Your task to perform on an android device: turn on bluetooth scan Image 0: 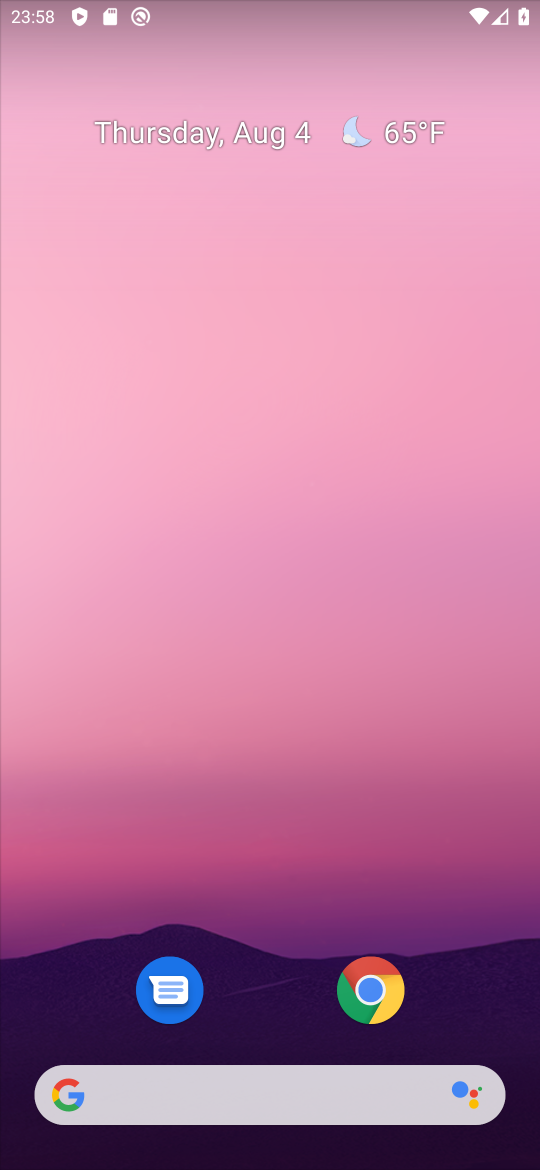
Step 0: drag from (413, 770) to (296, 126)
Your task to perform on an android device: turn on bluetooth scan Image 1: 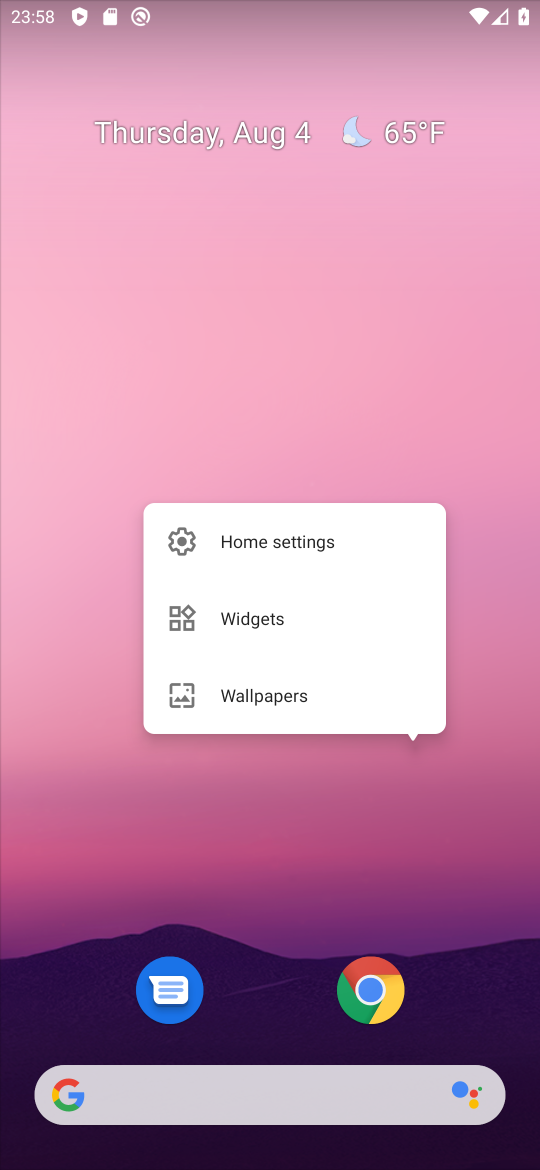
Step 1: drag from (509, 863) to (444, 381)
Your task to perform on an android device: turn on bluetooth scan Image 2: 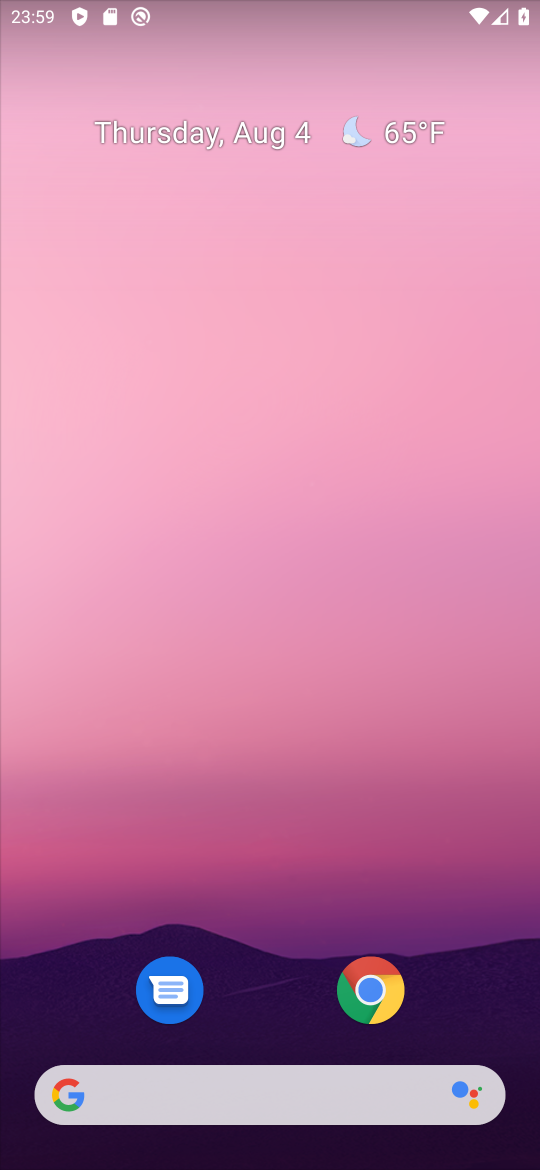
Step 2: drag from (298, 1009) to (250, 267)
Your task to perform on an android device: turn on bluetooth scan Image 3: 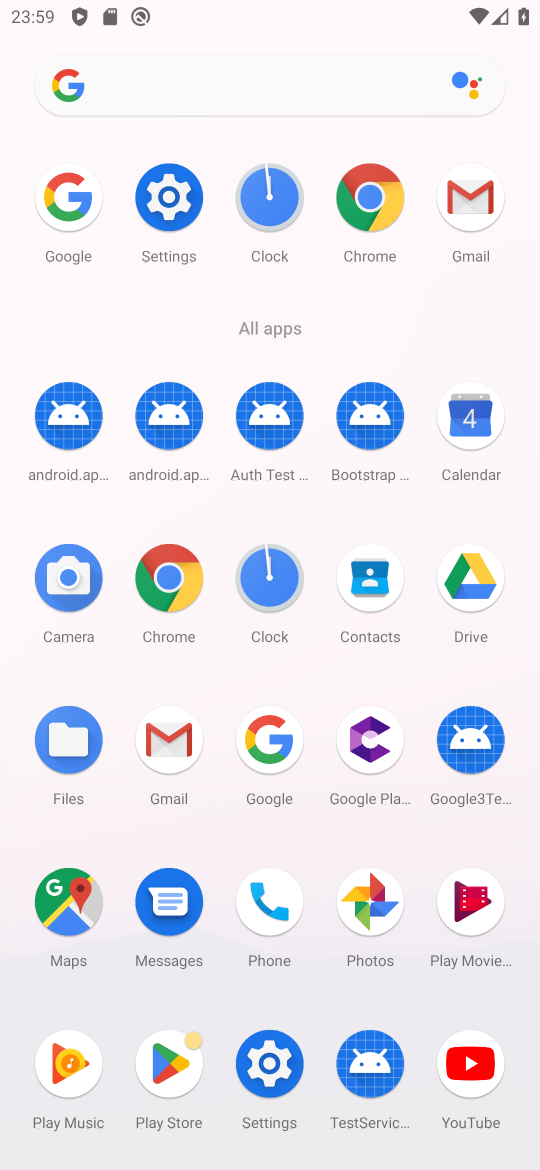
Step 3: click (173, 182)
Your task to perform on an android device: turn on bluetooth scan Image 4: 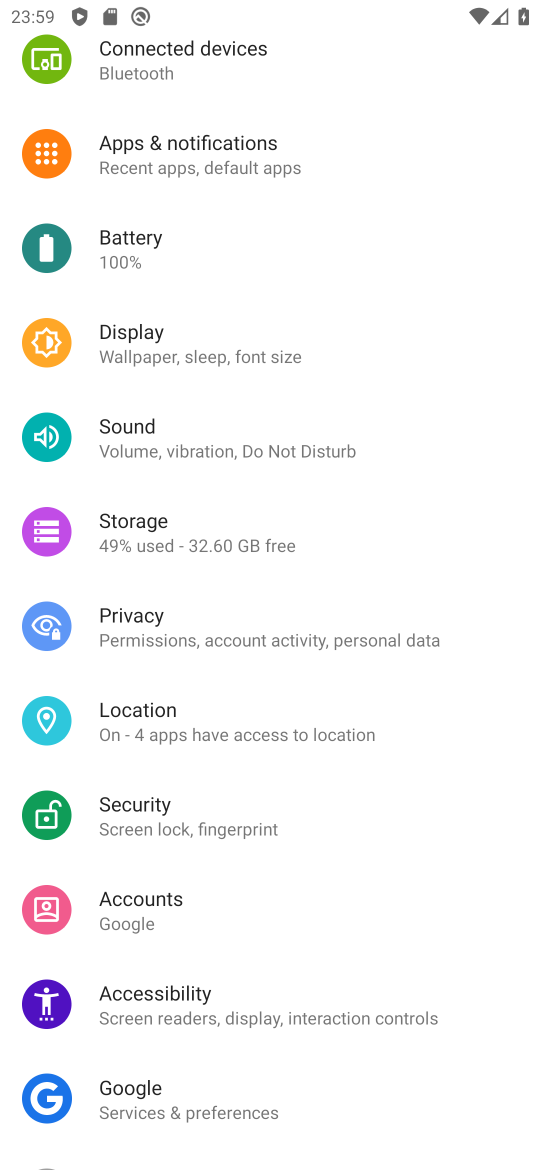
Step 4: click (277, 719)
Your task to perform on an android device: turn on bluetooth scan Image 5: 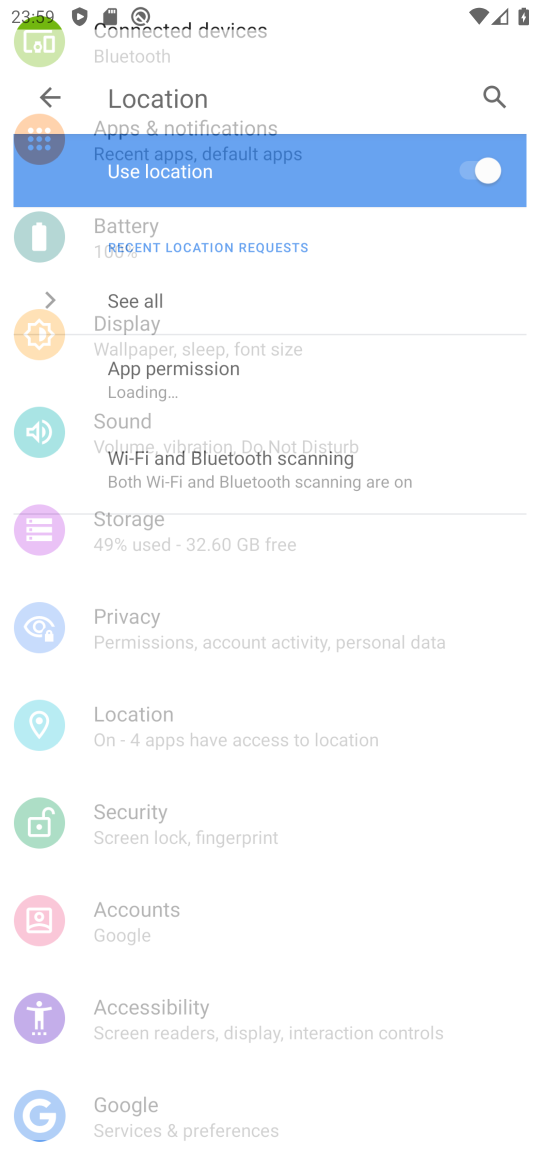
Step 5: click (239, 723)
Your task to perform on an android device: turn on bluetooth scan Image 6: 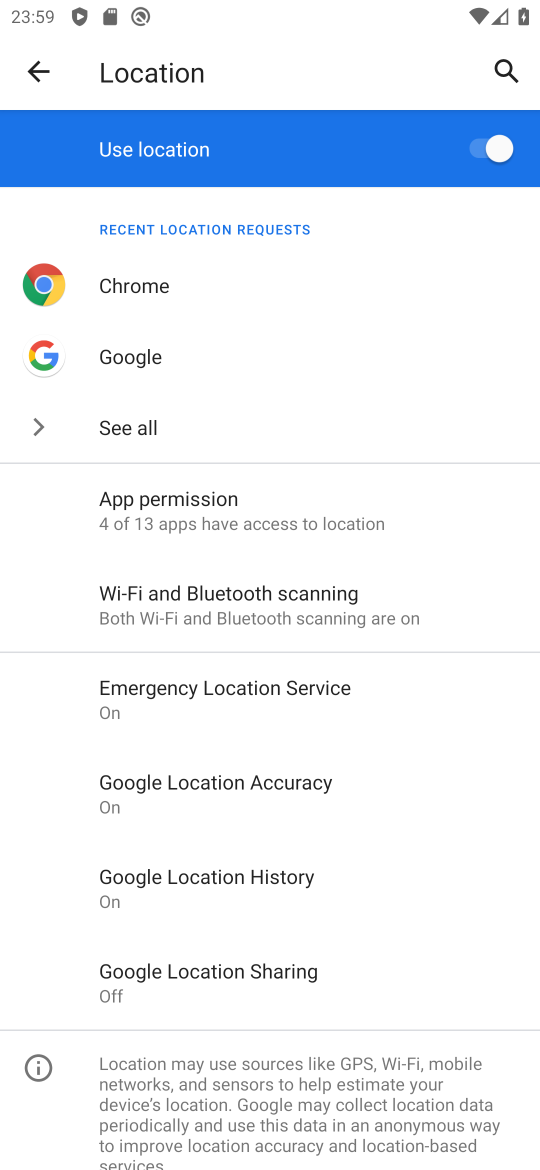
Step 6: click (339, 616)
Your task to perform on an android device: turn on bluetooth scan Image 7: 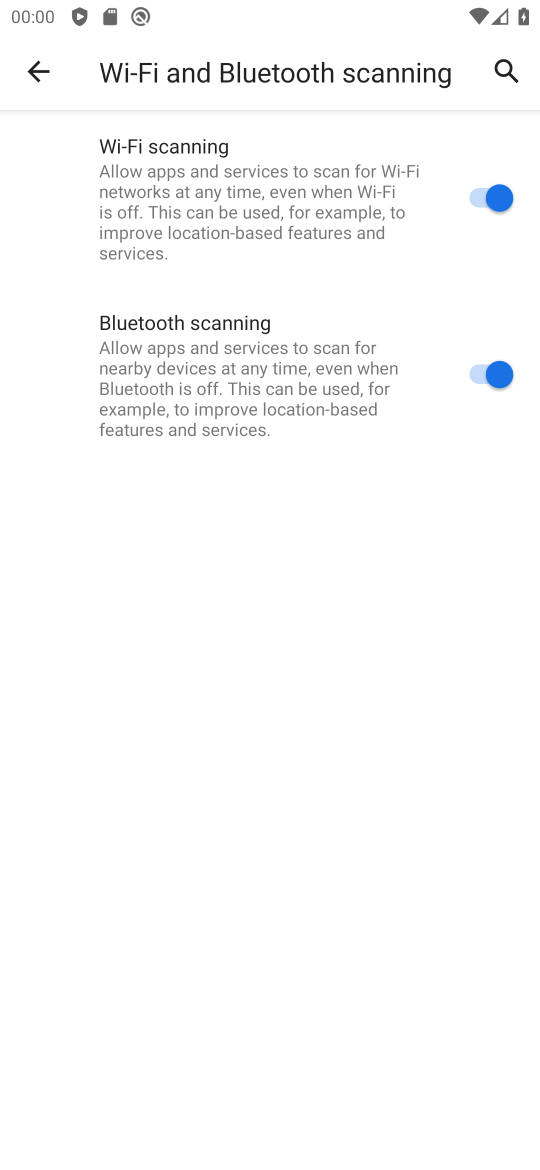
Step 7: task complete